Your task to perform on an android device: find snoozed emails in the gmail app Image 0: 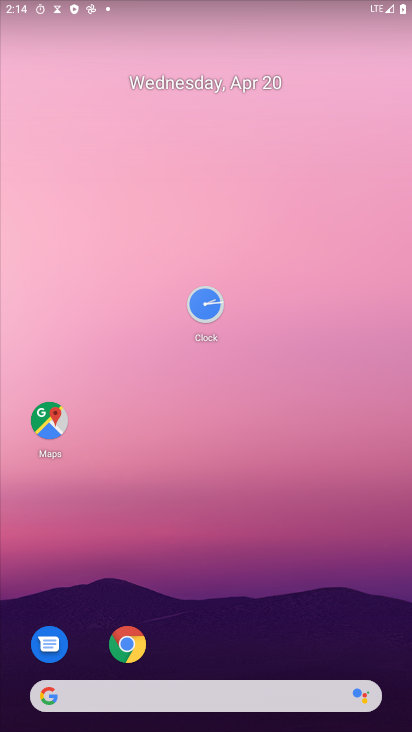
Step 0: drag from (391, 640) to (398, 324)
Your task to perform on an android device: find snoozed emails in the gmail app Image 1: 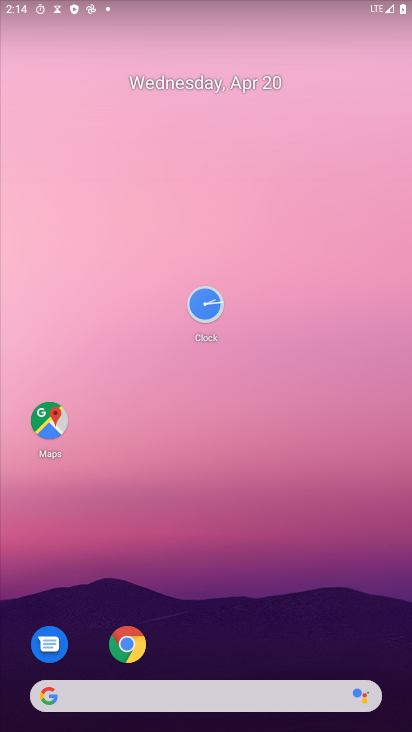
Step 1: drag from (394, 680) to (333, 65)
Your task to perform on an android device: find snoozed emails in the gmail app Image 2: 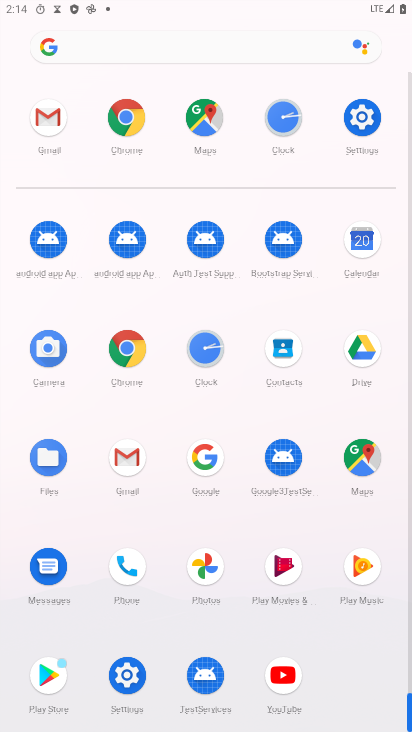
Step 2: click (133, 456)
Your task to perform on an android device: find snoozed emails in the gmail app Image 3: 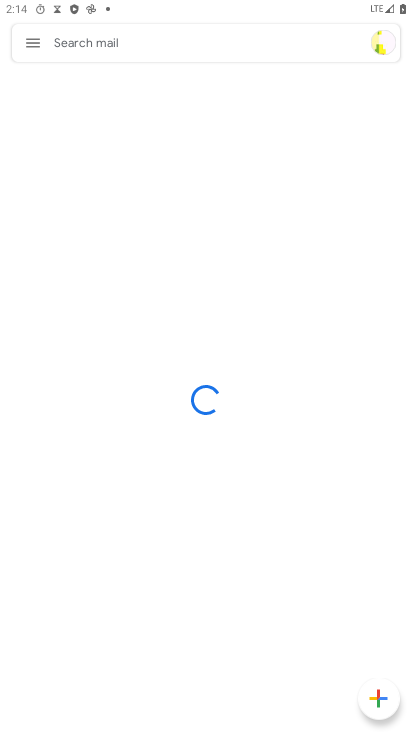
Step 3: click (27, 43)
Your task to perform on an android device: find snoozed emails in the gmail app Image 4: 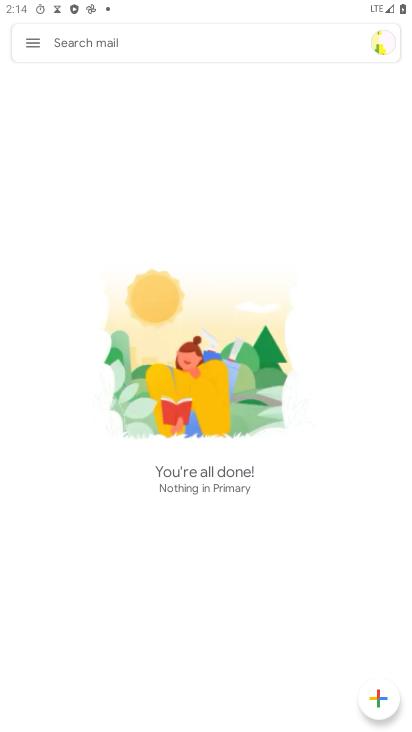
Step 4: click (38, 44)
Your task to perform on an android device: find snoozed emails in the gmail app Image 5: 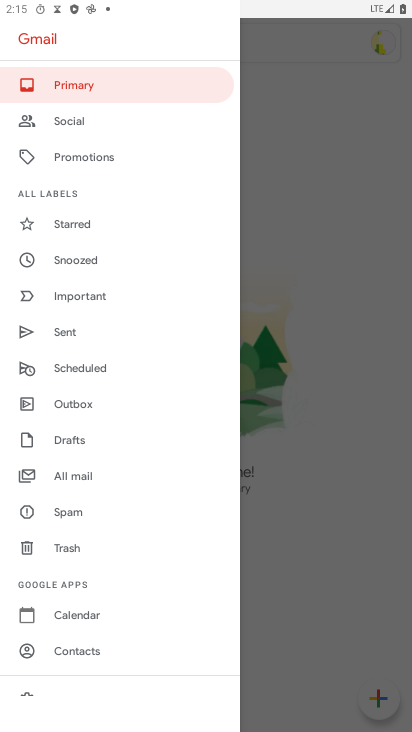
Step 5: click (62, 257)
Your task to perform on an android device: find snoozed emails in the gmail app Image 6: 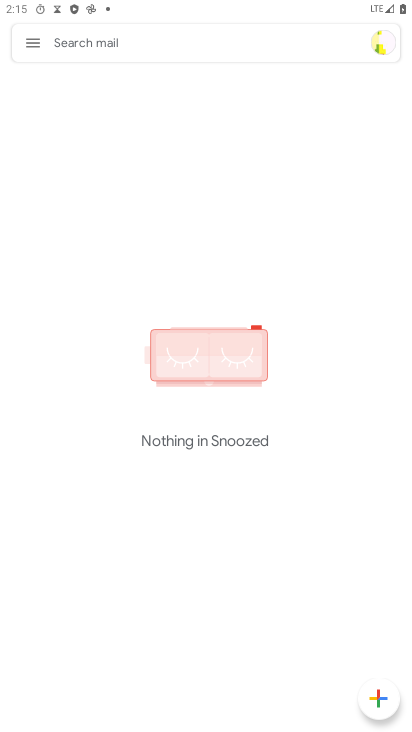
Step 6: task complete